Your task to perform on an android device: Open eBay Image 0: 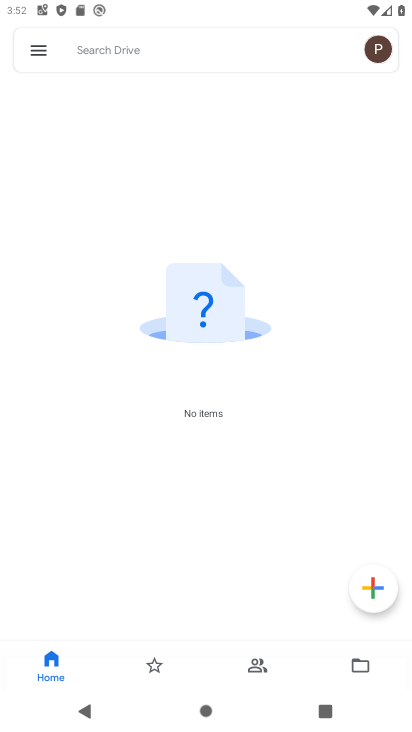
Step 0: press home button
Your task to perform on an android device: Open eBay Image 1: 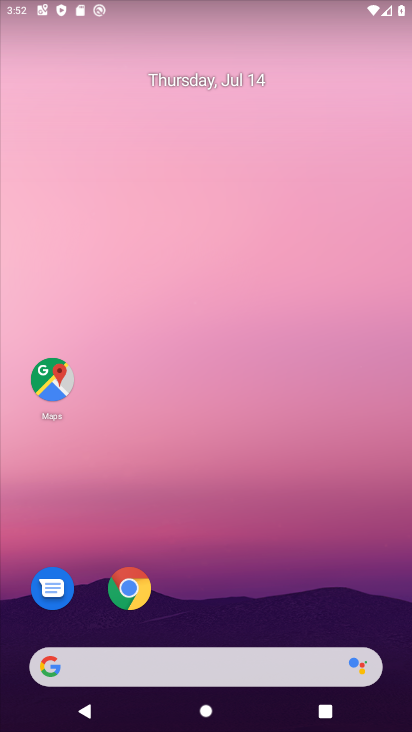
Step 1: drag from (311, 487) to (297, 3)
Your task to perform on an android device: Open eBay Image 2: 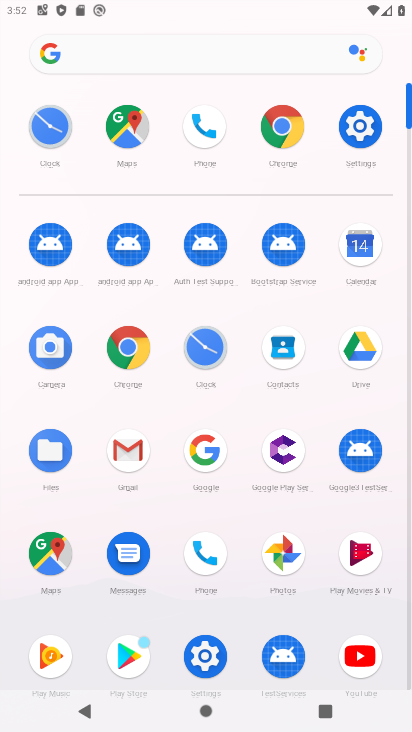
Step 2: click (117, 349)
Your task to perform on an android device: Open eBay Image 3: 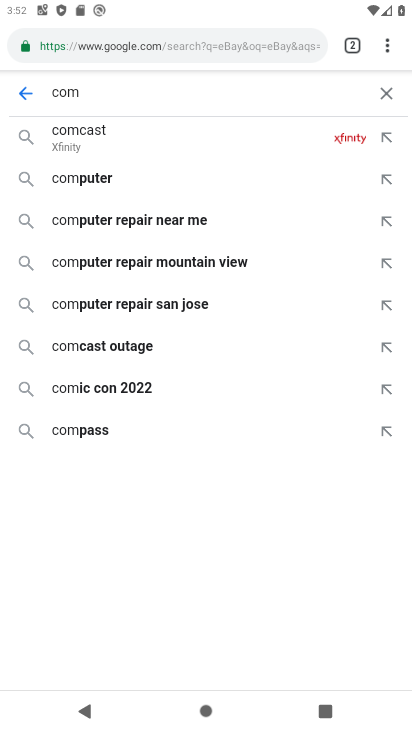
Step 3: click (383, 99)
Your task to perform on an android device: Open eBay Image 4: 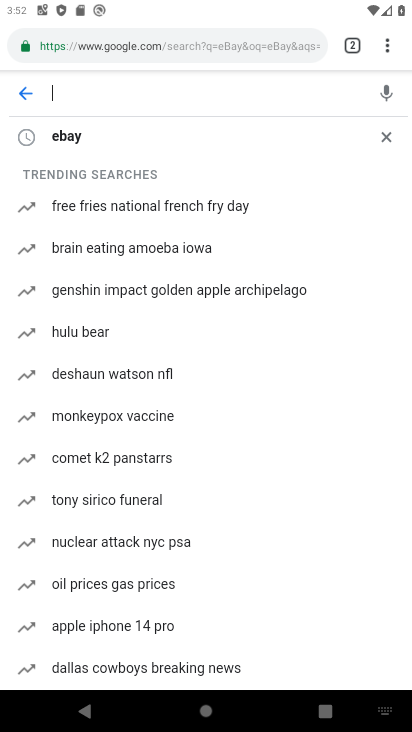
Step 4: click (249, 37)
Your task to perform on an android device: Open eBay Image 5: 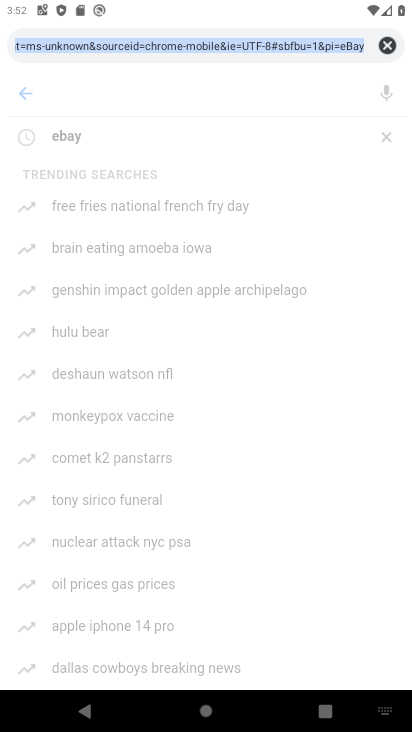
Step 5: click (386, 41)
Your task to perform on an android device: Open eBay Image 6: 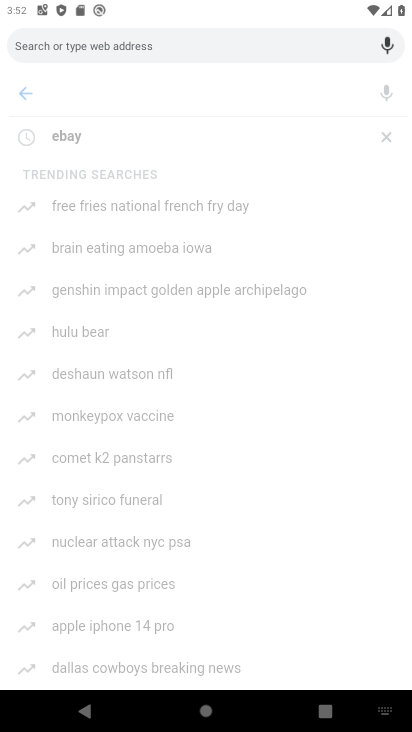
Step 6: click (70, 138)
Your task to perform on an android device: Open eBay Image 7: 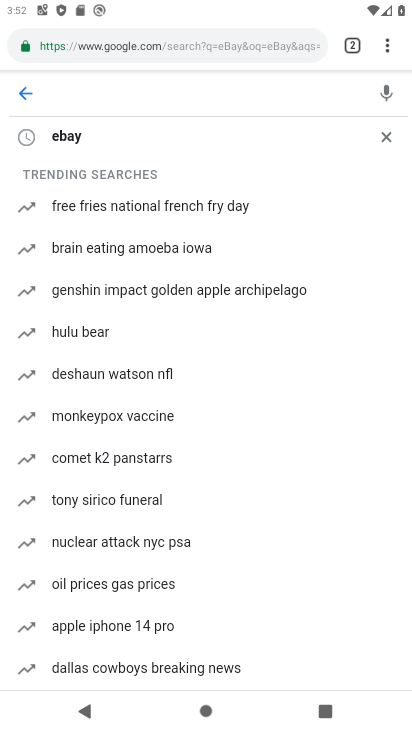
Step 7: click (70, 138)
Your task to perform on an android device: Open eBay Image 8: 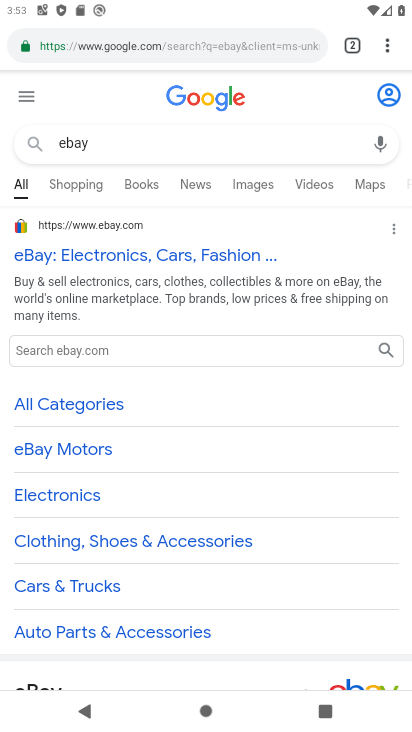
Step 8: click (71, 244)
Your task to perform on an android device: Open eBay Image 9: 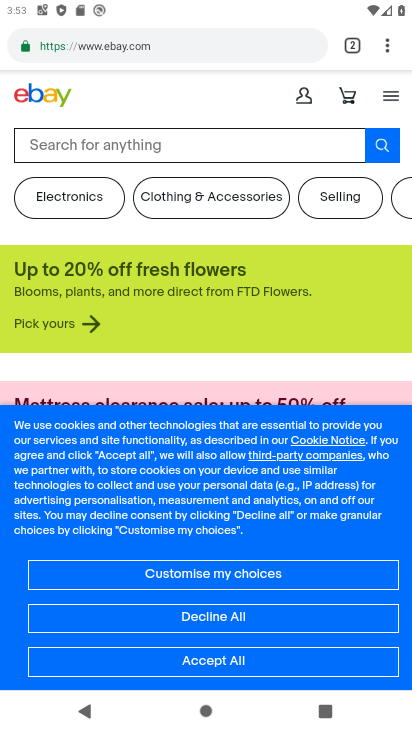
Step 9: task complete